Your task to perform on an android device: open the mobile data screen to see how much data has been used Image 0: 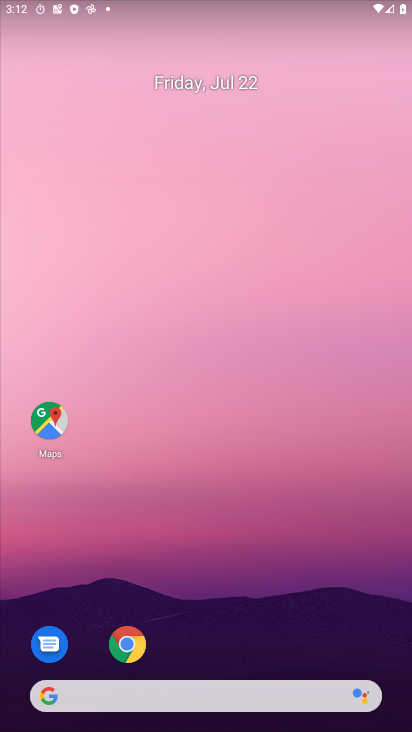
Step 0: drag from (191, 683) to (179, 218)
Your task to perform on an android device: open the mobile data screen to see how much data has been used Image 1: 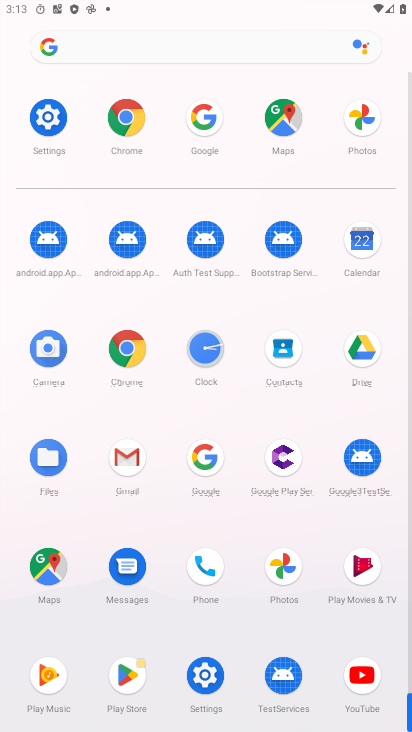
Step 1: click (47, 139)
Your task to perform on an android device: open the mobile data screen to see how much data has been used Image 2: 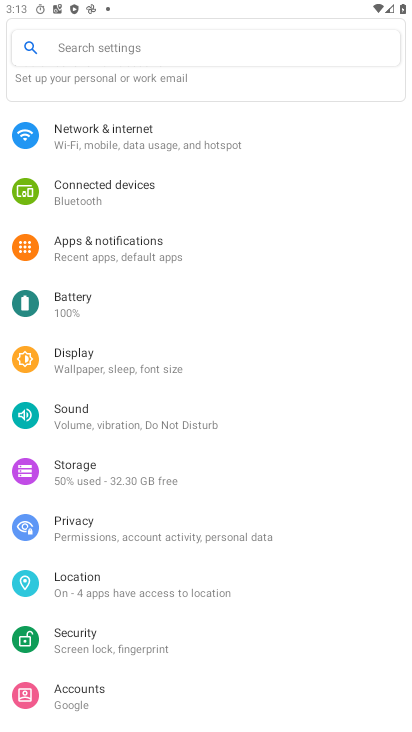
Step 2: click (113, 148)
Your task to perform on an android device: open the mobile data screen to see how much data has been used Image 3: 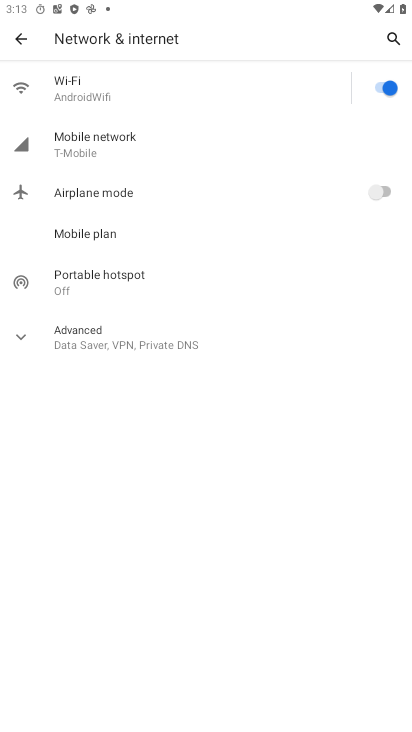
Step 3: click (131, 143)
Your task to perform on an android device: open the mobile data screen to see how much data has been used Image 4: 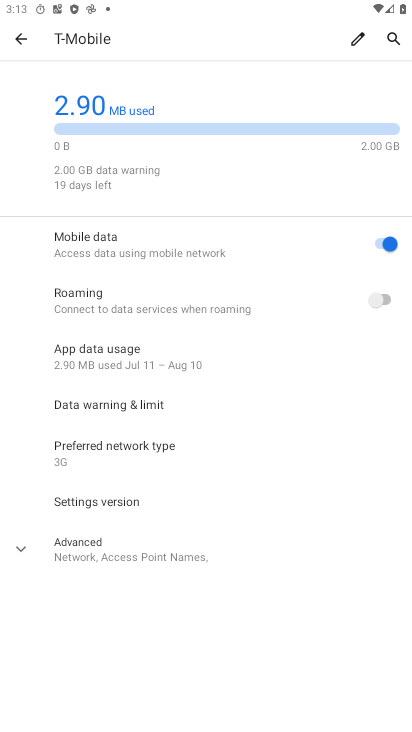
Step 4: click (140, 360)
Your task to perform on an android device: open the mobile data screen to see how much data has been used Image 5: 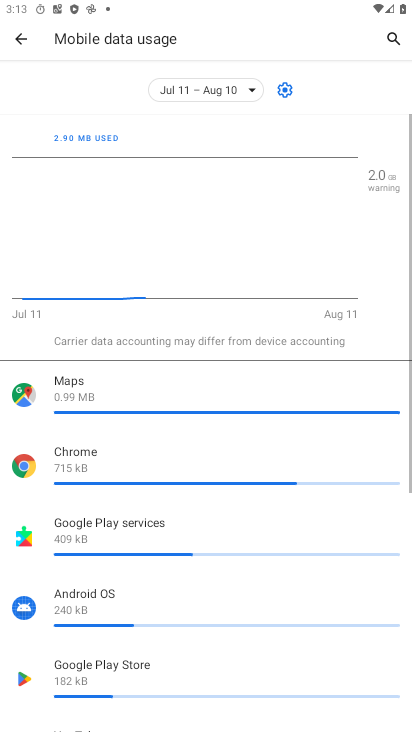
Step 5: task complete